Your task to perform on an android device: Open notification settings Image 0: 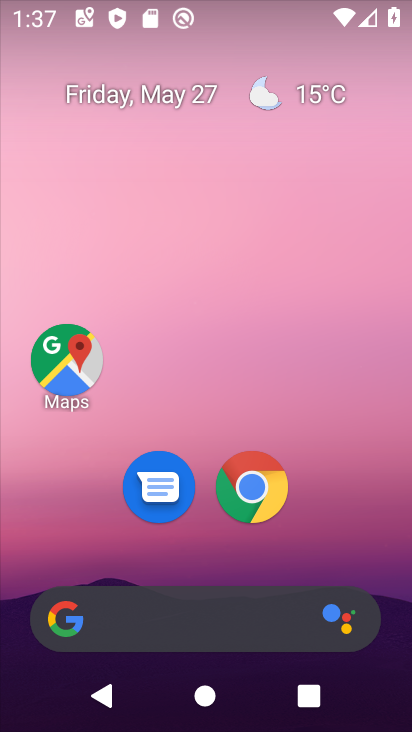
Step 0: drag from (207, 545) to (251, 225)
Your task to perform on an android device: Open notification settings Image 1: 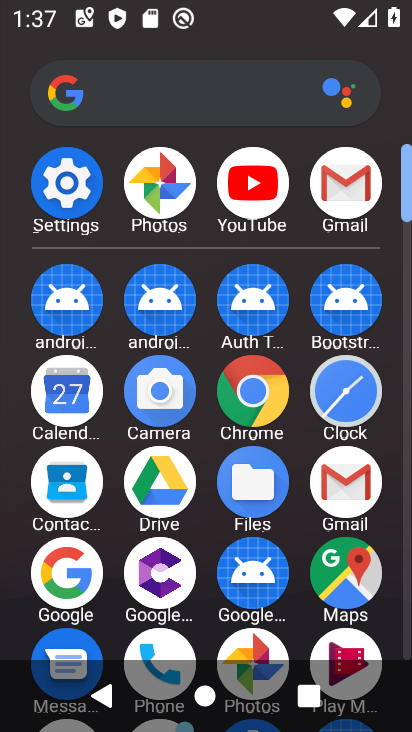
Step 1: click (74, 166)
Your task to perform on an android device: Open notification settings Image 2: 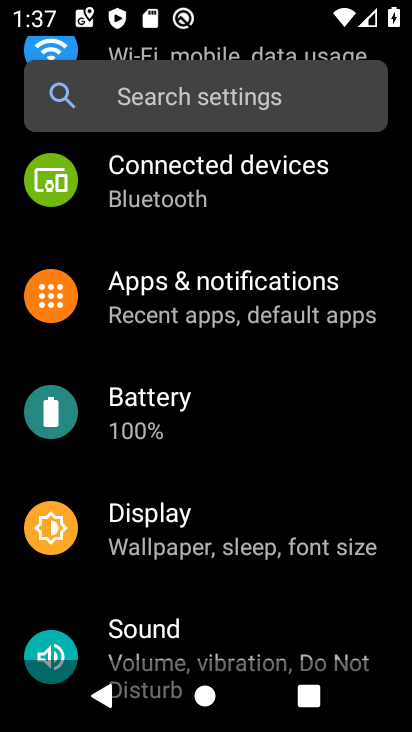
Step 2: click (270, 297)
Your task to perform on an android device: Open notification settings Image 3: 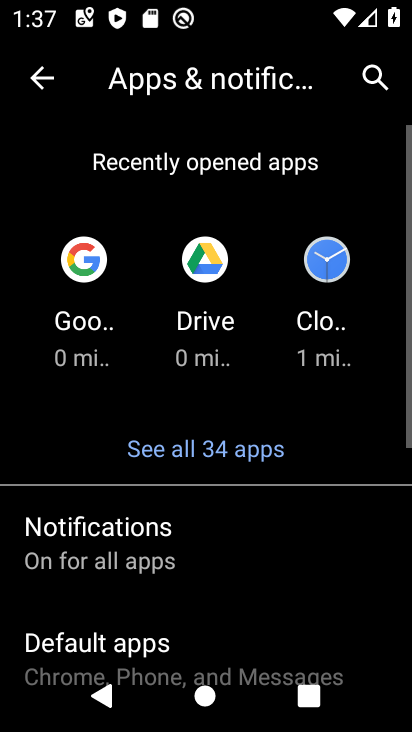
Step 3: task complete